Your task to perform on an android device: add a label to a message in the gmail app Image 0: 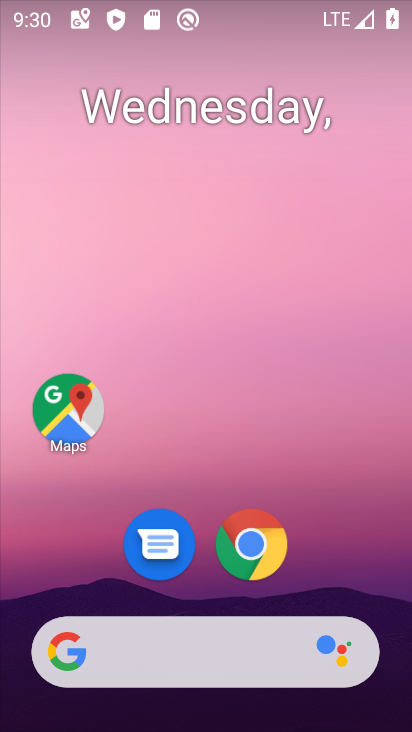
Step 0: drag from (200, 594) to (210, 20)
Your task to perform on an android device: add a label to a message in the gmail app Image 1: 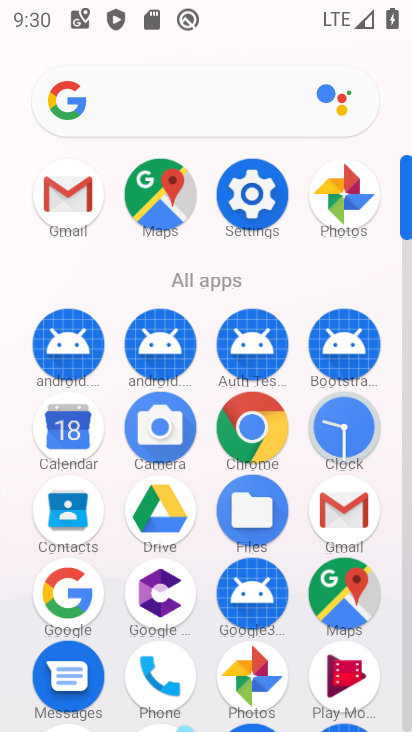
Step 1: click (68, 195)
Your task to perform on an android device: add a label to a message in the gmail app Image 2: 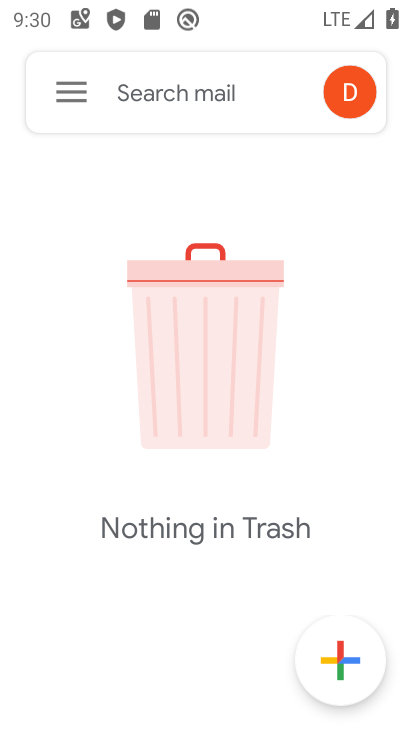
Step 2: click (64, 115)
Your task to perform on an android device: add a label to a message in the gmail app Image 3: 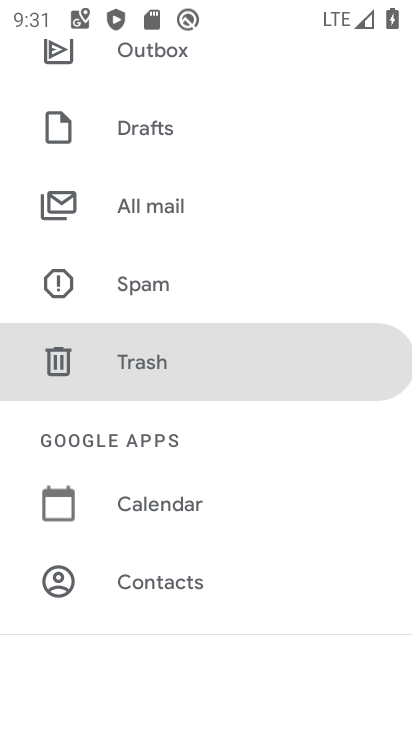
Step 3: click (156, 218)
Your task to perform on an android device: add a label to a message in the gmail app Image 4: 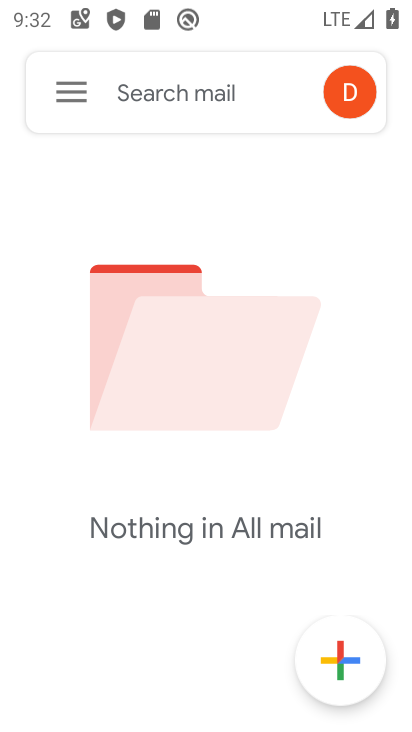
Step 4: task complete